Your task to perform on an android device: Show me recent news Image 0: 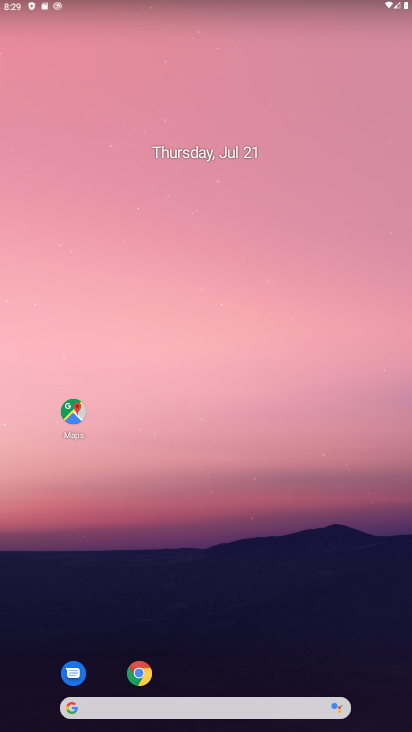
Step 0: drag from (3, 156) to (365, 169)
Your task to perform on an android device: Show me recent news Image 1: 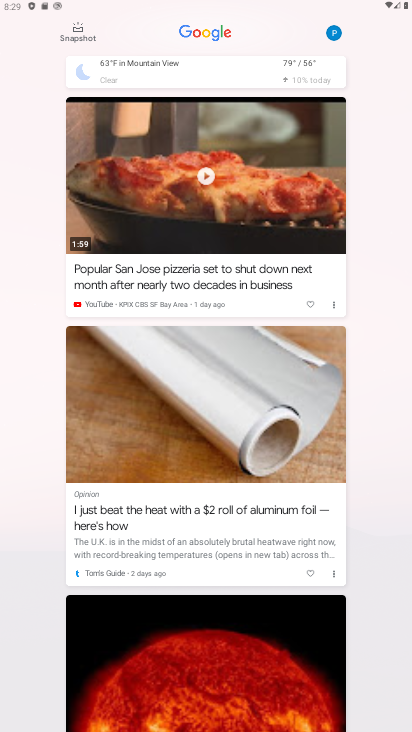
Step 1: task complete